Your task to perform on an android device: Go to network settings Image 0: 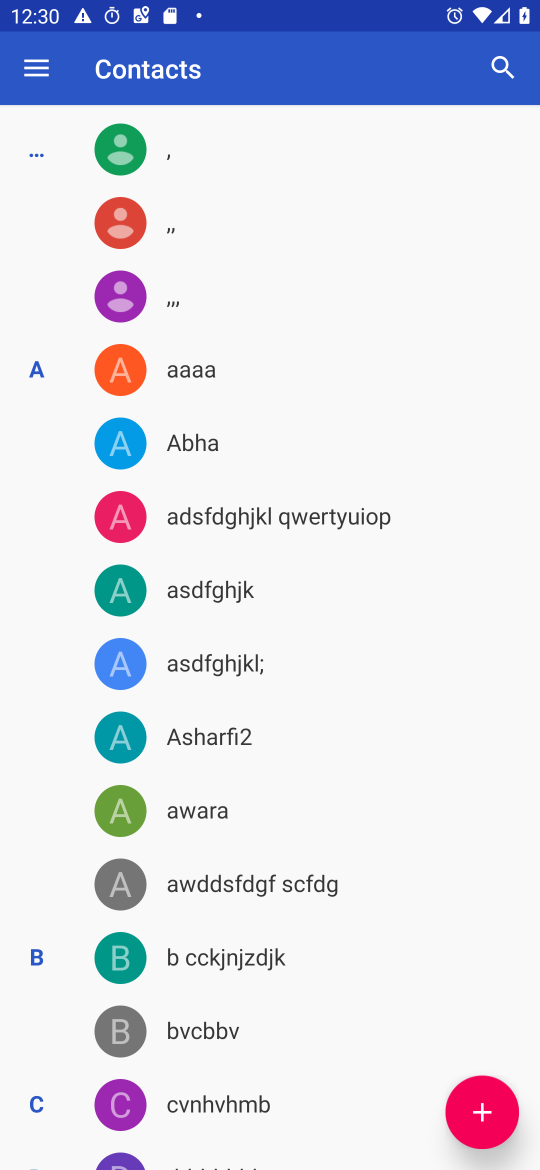
Step 0: press home button
Your task to perform on an android device: Go to network settings Image 1: 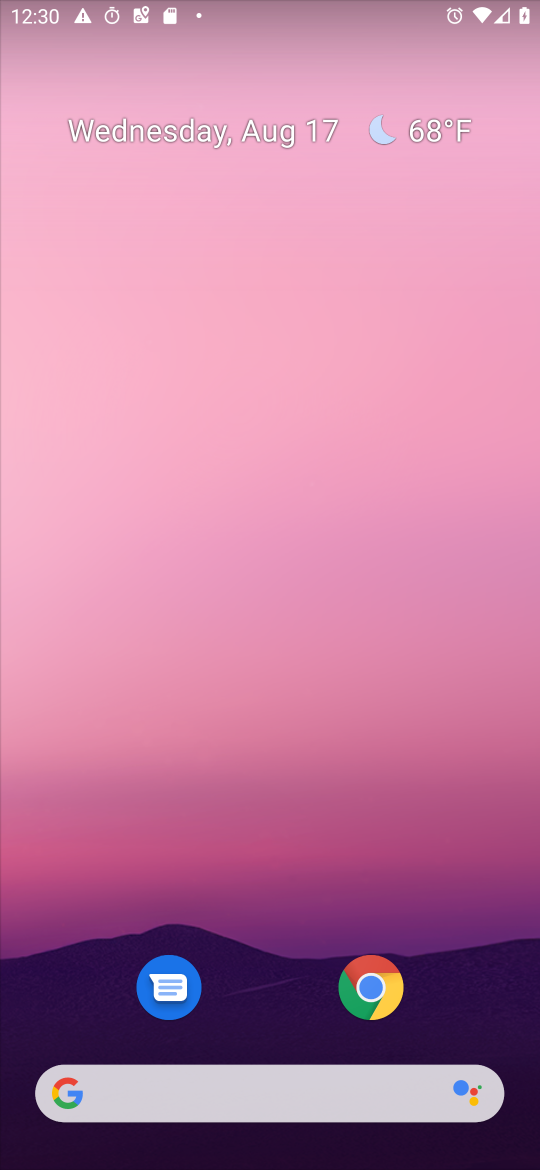
Step 1: drag from (13, 1153) to (407, 557)
Your task to perform on an android device: Go to network settings Image 2: 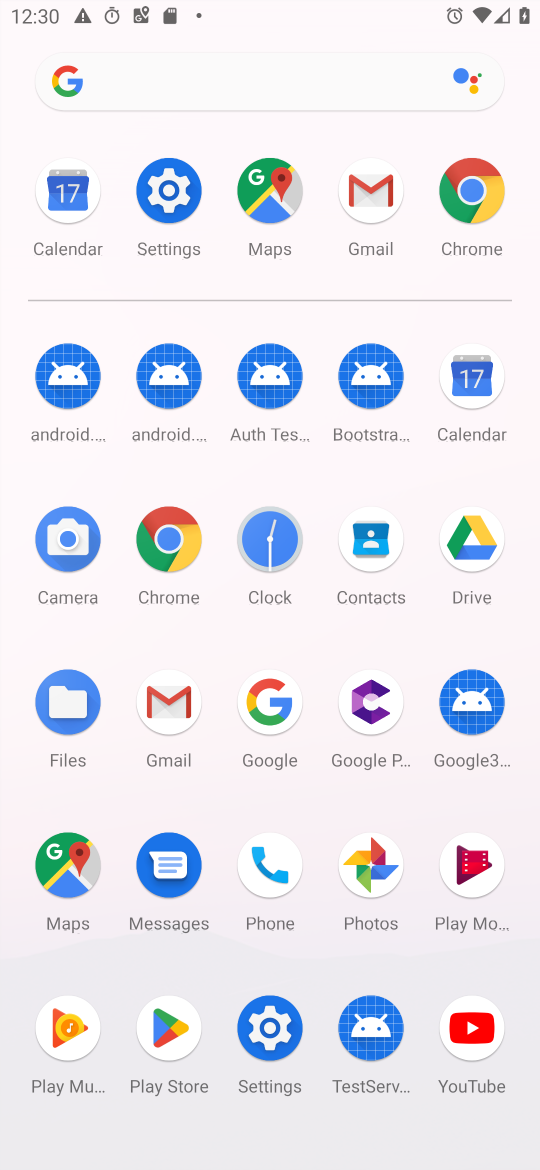
Step 2: click (277, 1044)
Your task to perform on an android device: Go to network settings Image 3: 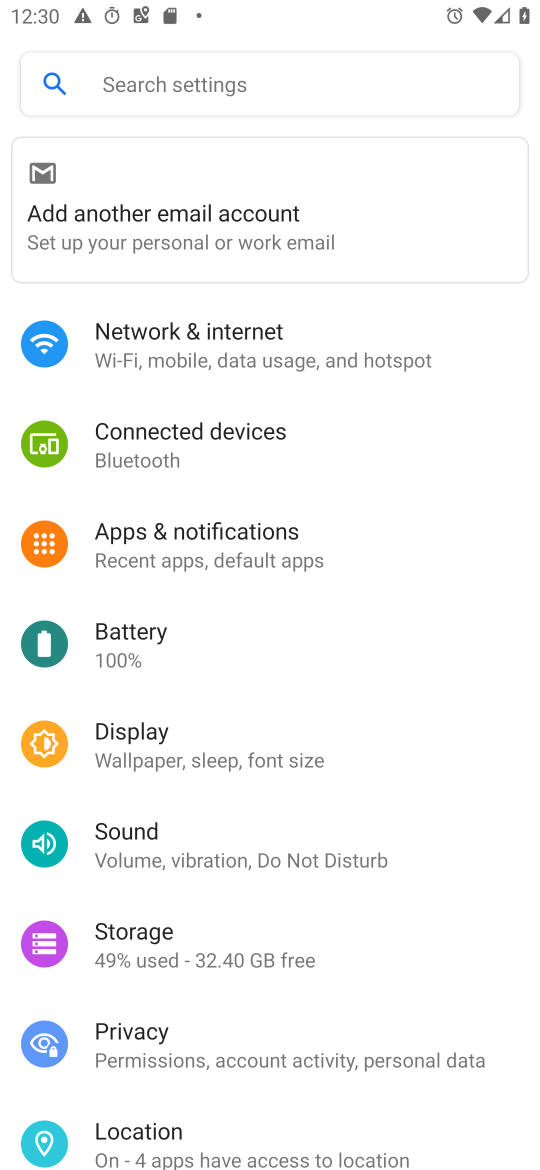
Step 3: click (203, 359)
Your task to perform on an android device: Go to network settings Image 4: 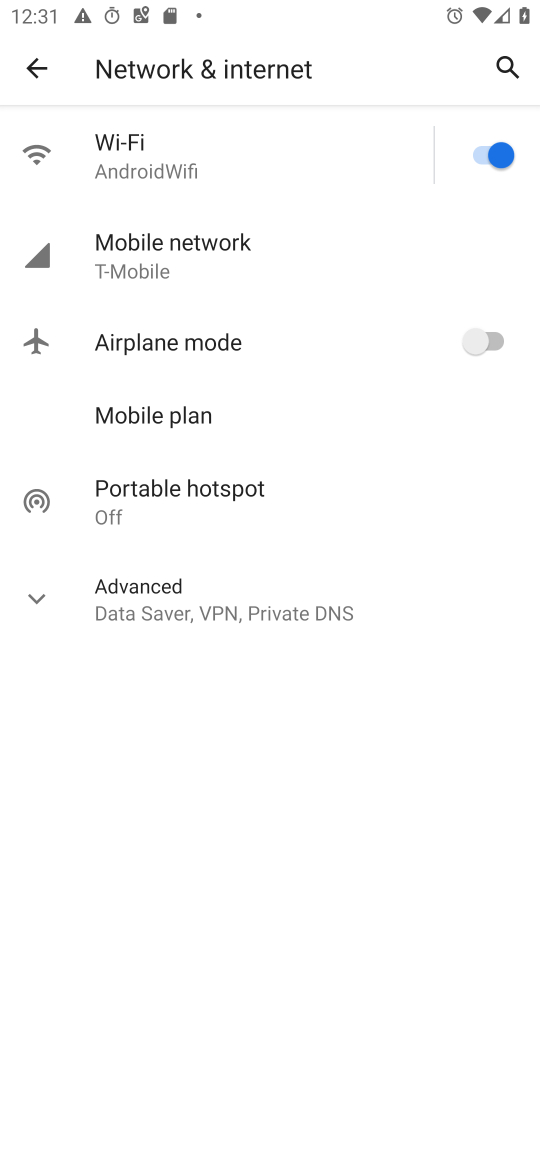
Step 4: task complete